Your task to perform on an android device: Search for vegetarian restaurants on Maps Image 0: 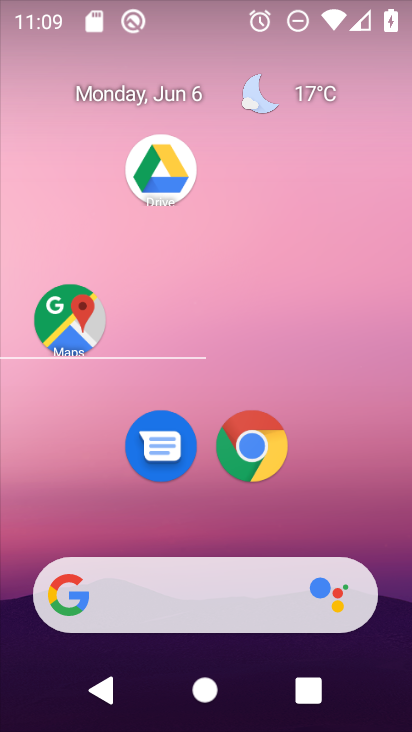
Step 0: click (64, 315)
Your task to perform on an android device: Search for vegetarian restaurants on Maps Image 1: 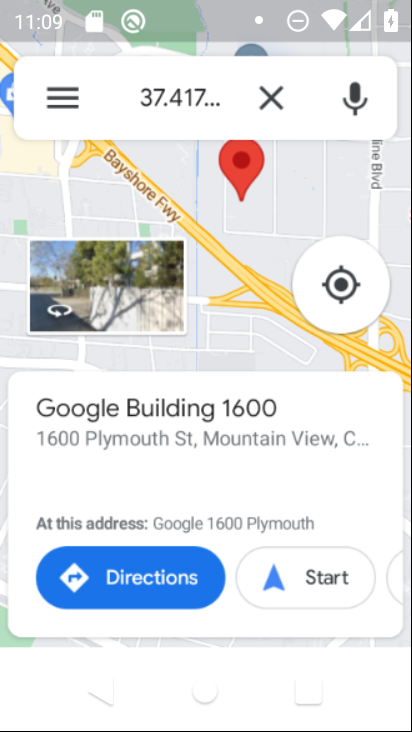
Step 1: click (64, 315)
Your task to perform on an android device: Search for vegetarian restaurants on Maps Image 2: 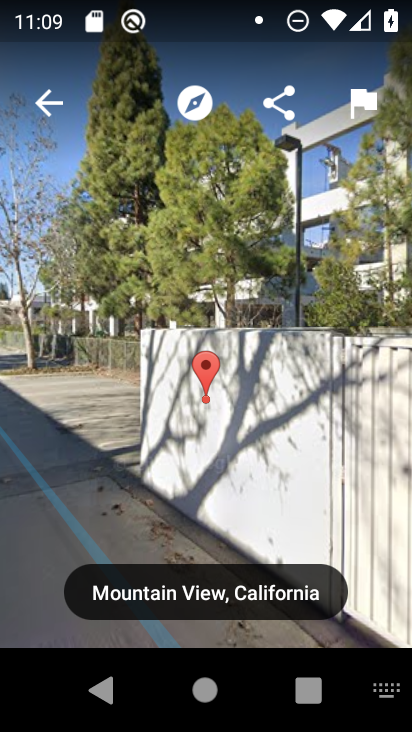
Step 2: click (54, 95)
Your task to perform on an android device: Search for vegetarian restaurants on Maps Image 3: 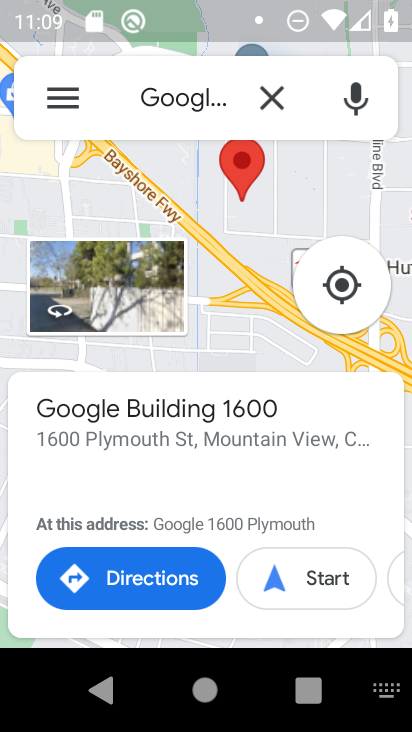
Step 3: click (272, 86)
Your task to perform on an android device: Search for vegetarian restaurants on Maps Image 4: 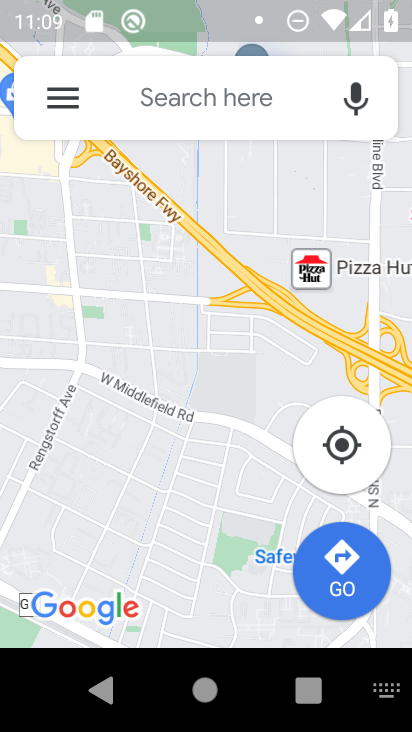
Step 4: click (211, 92)
Your task to perform on an android device: Search for vegetarian restaurants on Maps Image 5: 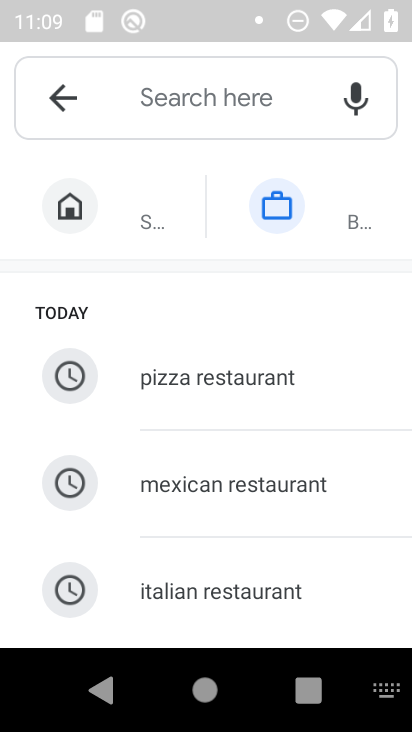
Step 5: type "vegetarian restaurant"
Your task to perform on an android device: Search for vegetarian restaurants on Maps Image 6: 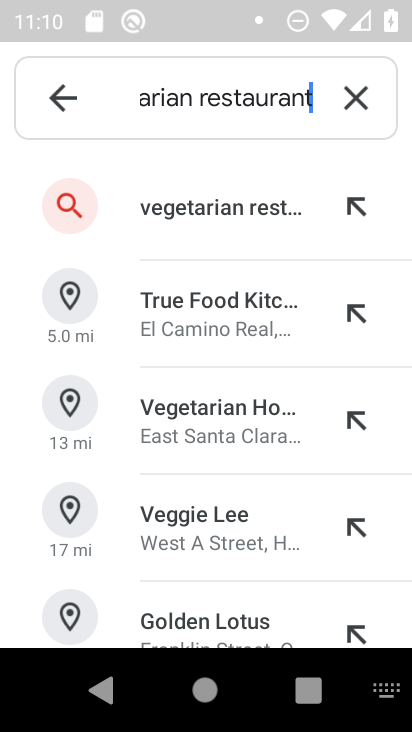
Step 6: click (216, 228)
Your task to perform on an android device: Search for vegetarian restaurants on Maps Image 7: 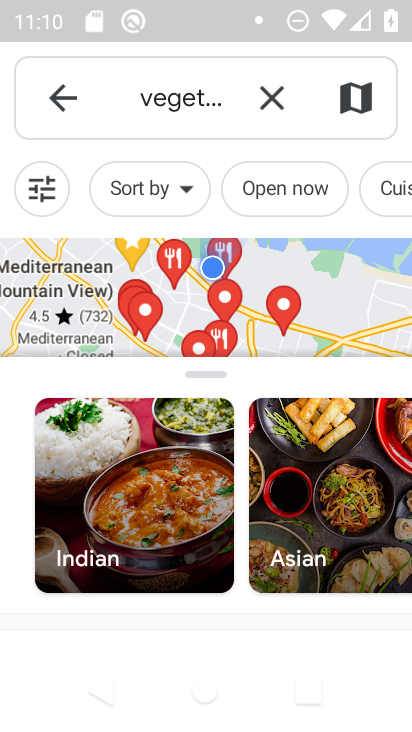
Step 7: task complete